Your task to perform on an android device: turn off javascript in the chrome app Image 0: 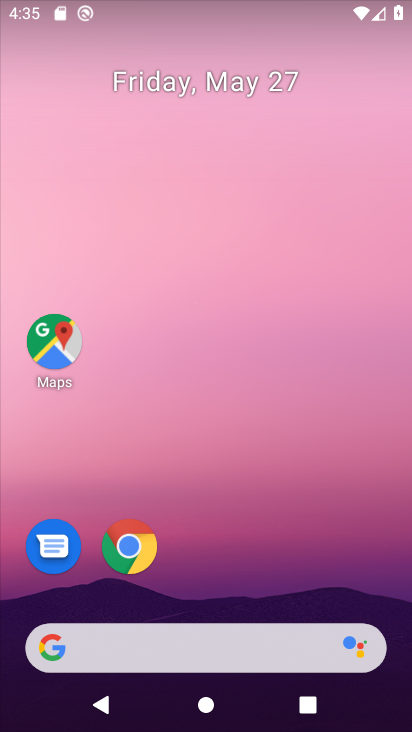
Step 0: drag from (300, 543) to (252, 9)
Your task to perform on an android device: turn off javascript in the chrome app Image 1: 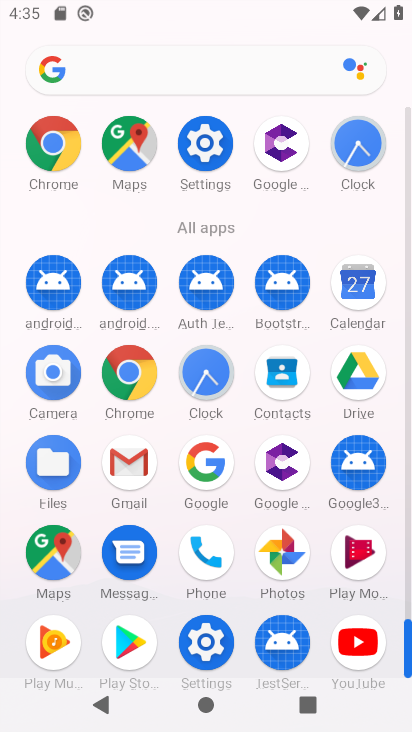
Step 1: drag from (0, 527) to (0, 269)
Your task to perform on an android device: turn off javascript in the chrome app Image 2: 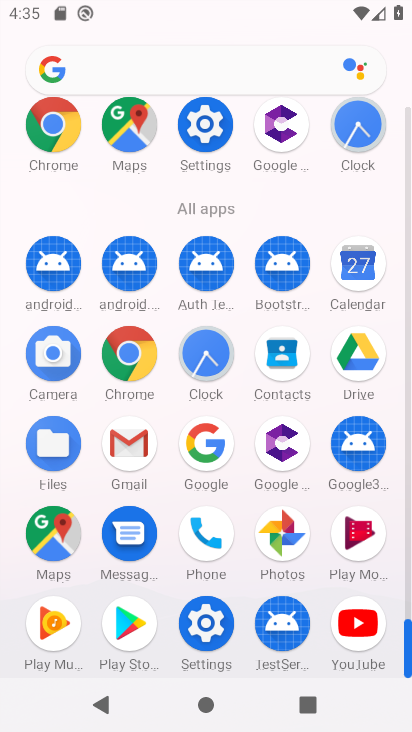
Step 2: click (129, 345)
Your task to perform on an android device: turn off javascript in the chrome app Image 3: 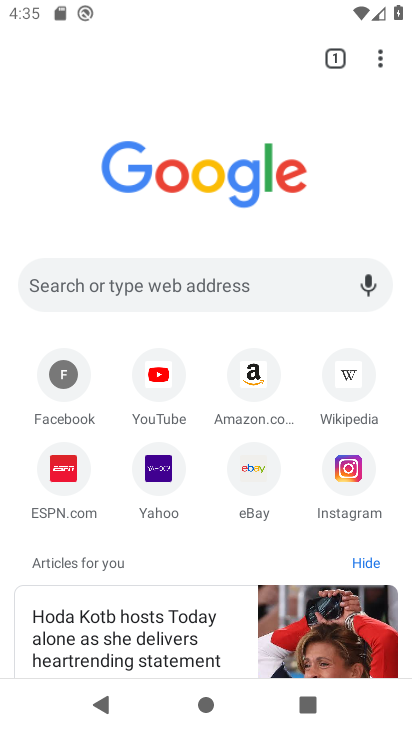
Step 3: drag from (377, 57) to (184, 481)
Your task to perform on an android device: turn off javascript in the chrome app Image 4: 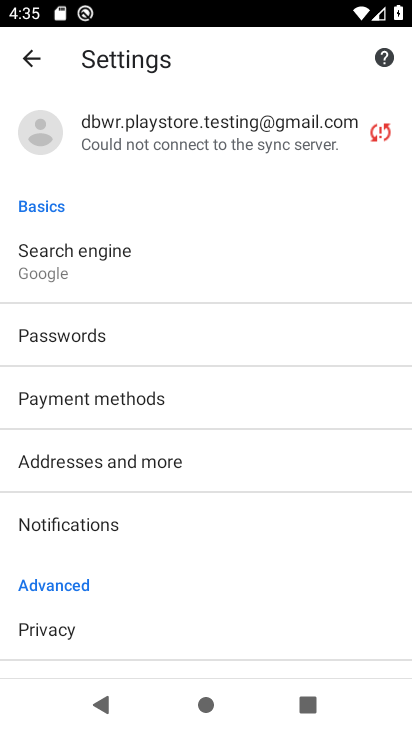
Step 4: drag from (197, 555) to (213, 217)
Your task to perform on an android device: turn off javascript in the chrome app Image 5: 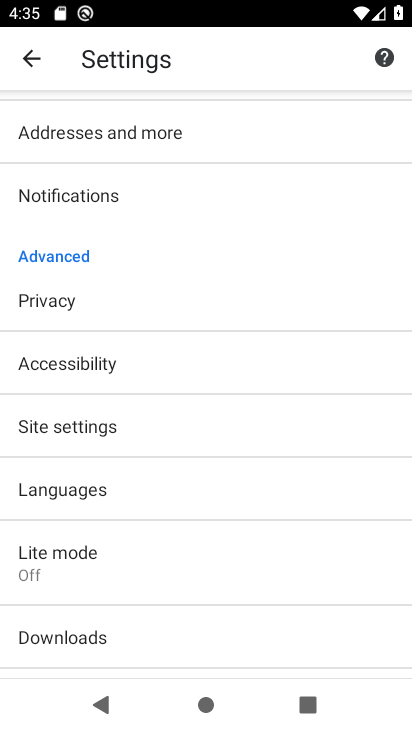
Step 5: click (128, 412)
Your task to perform on an android device: turn off javascript in the chrome app Image 6: 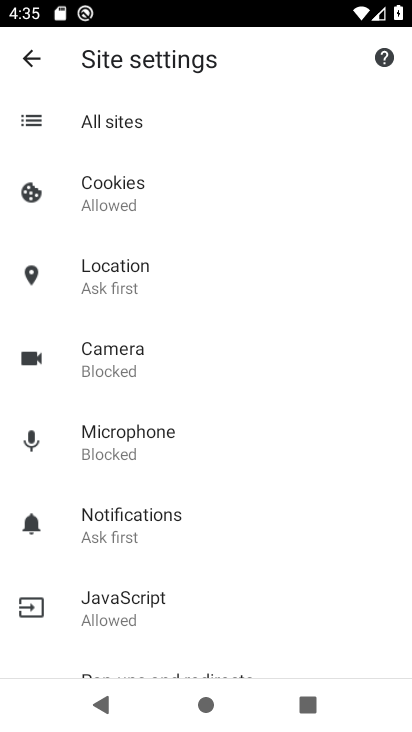
Step 6: click (148, 609)
Your task to perform on an android device: turn off javascript in the chrome app Image 7: 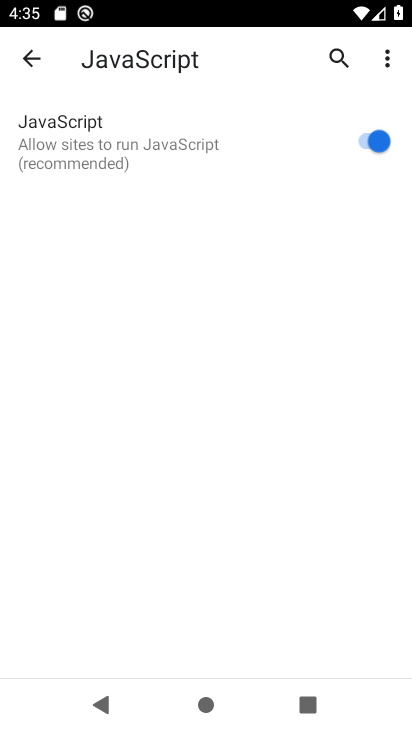
Step 7: click (357, 133)
Your task to perform on an android device: turn off javascript in the chrome app Image 8: 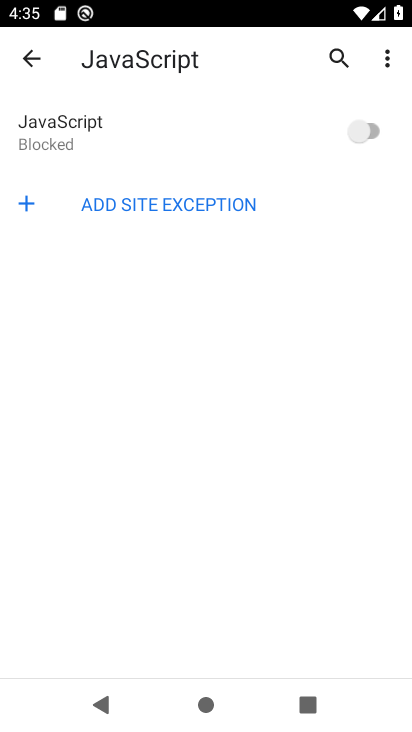
Step 8: task complete